Your task to perform on an android device: Go to settings Image 0: 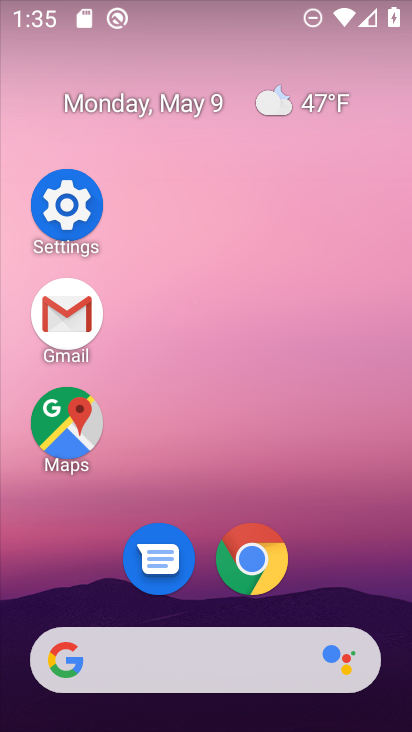
Step 0: click (60, 207)
Your task to perform on an android device: Go to settings Image 1: 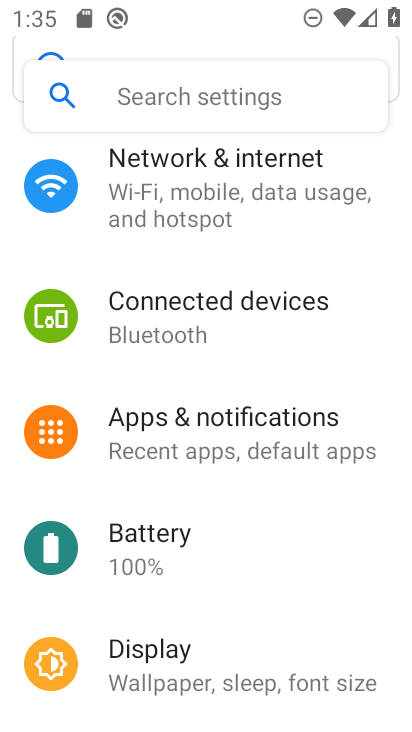
Step 1: task complete